Your task to perform on an android device: Do I have any events tomorrow? Image 0: 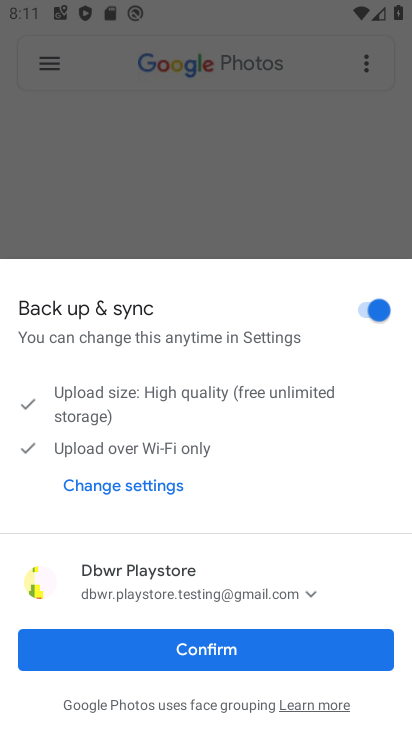
Step 0: press back button
Your task to perform on an android device: Do I have any events tomorrow? Image 1: 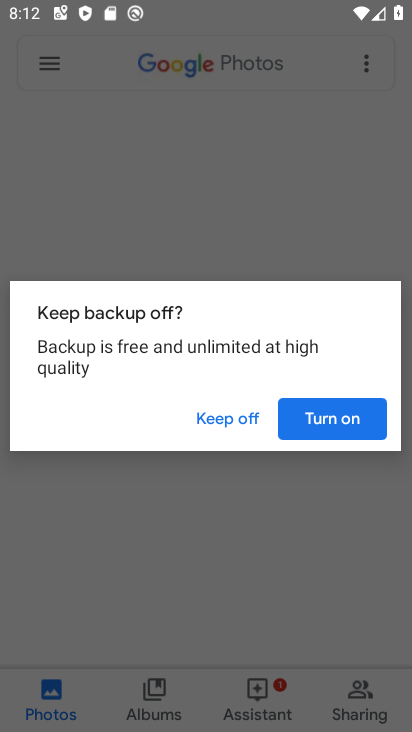
Step 1: click (229, 408)
Your task to perform on an android device: Do I have any events tomorrow? Image 2: 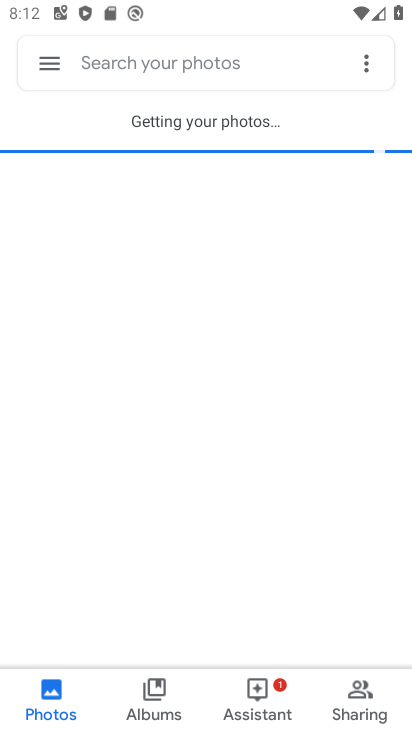
Step 2: press back button
Your task to perform on an android device: Do I have any events tomorrow? Image 3: 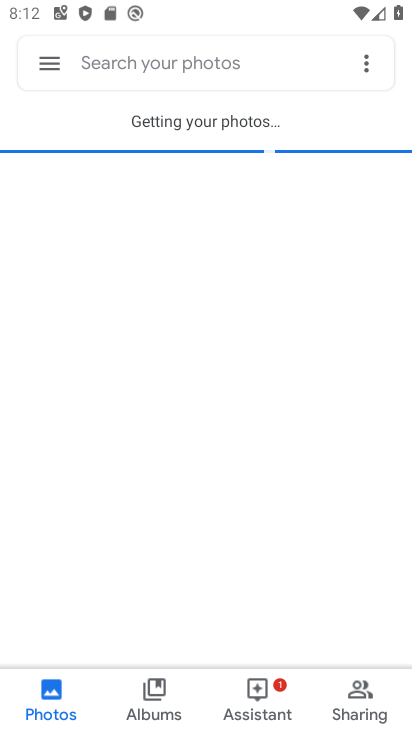
Step 3: press back button
Your task to perform on an android device: Do I have any events tomorrow? Image 4: 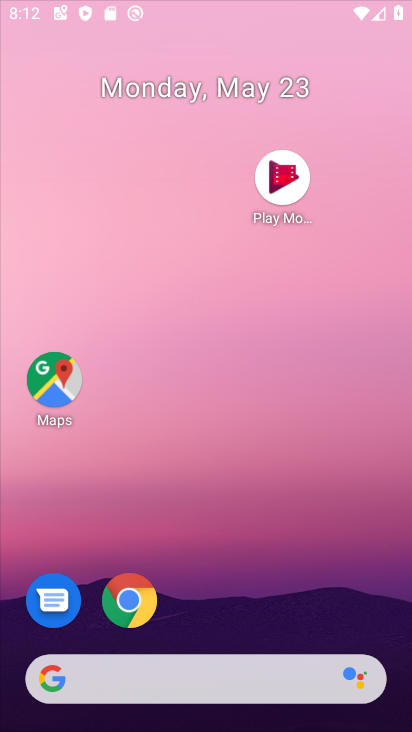
Step 4: press back button
Your task to perform on an android device: Do I have any events tomorrow? Image 5: 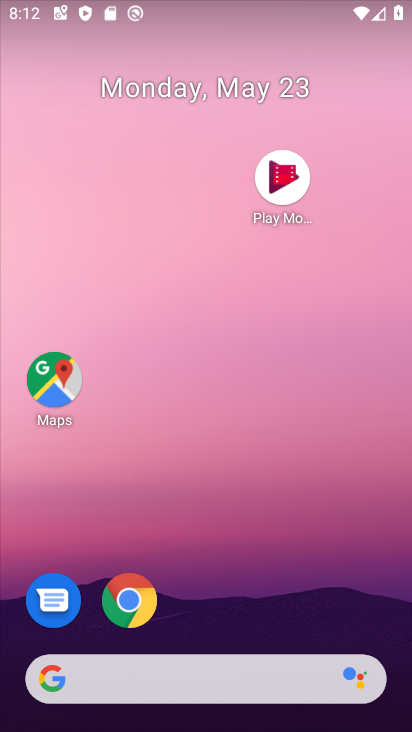
Step 5: drag from (278, 694) to (278, 200)
Your task to perform on an android device: Do I have any events tomorrow? Image 6: 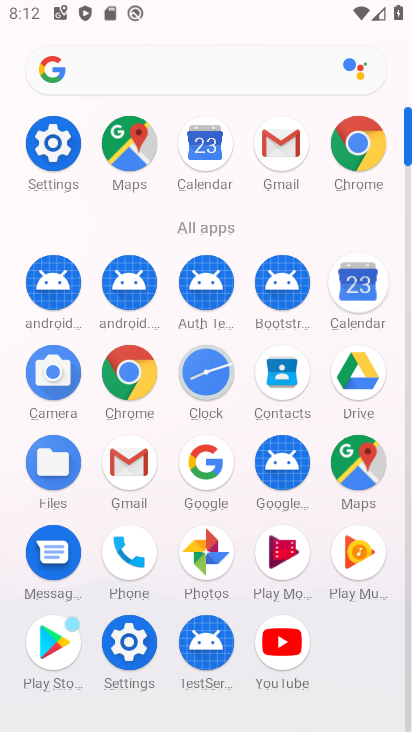
Step 6: click (356, 291)
Your task to perform on an android device: Do I have any events tomorrow? Image 7: 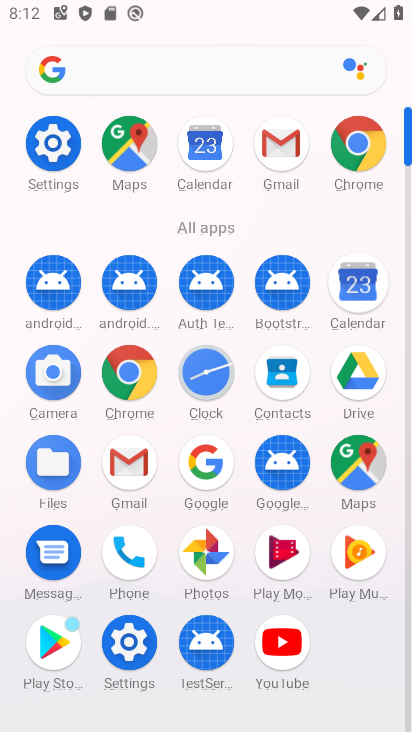
Step 7: click (359, 292)
Your task to perform on an android device: Do I have any events tomorrow? Image 8: 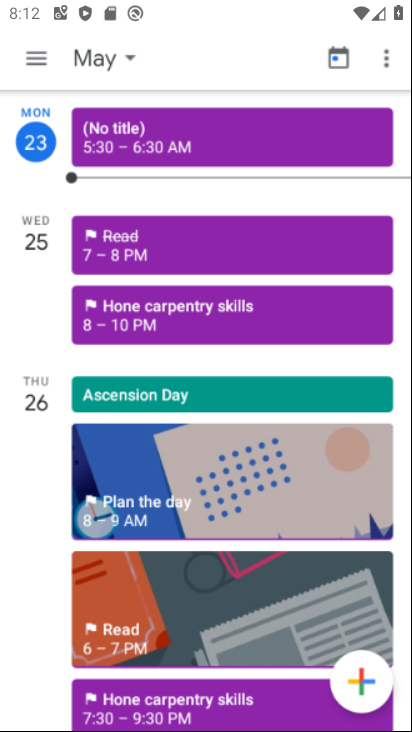
Step 8: click (363, 291)
Your task to perform on an android device: Do I have any events tomorrow? Image 9: 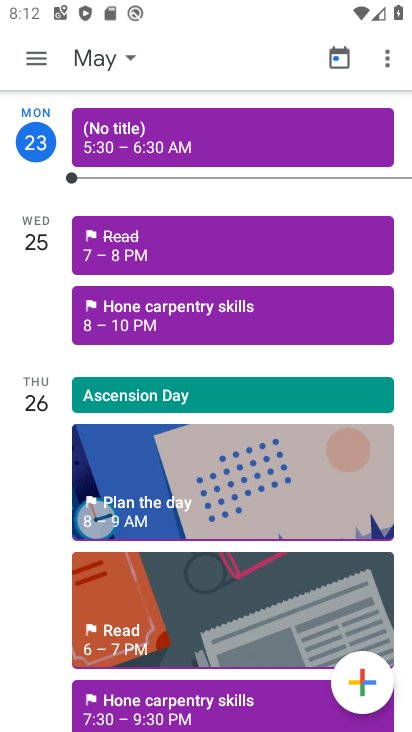
Step 9: click (136, 250)
Your task to perform on an android device: Do I have any events tomorrow? Image 10: 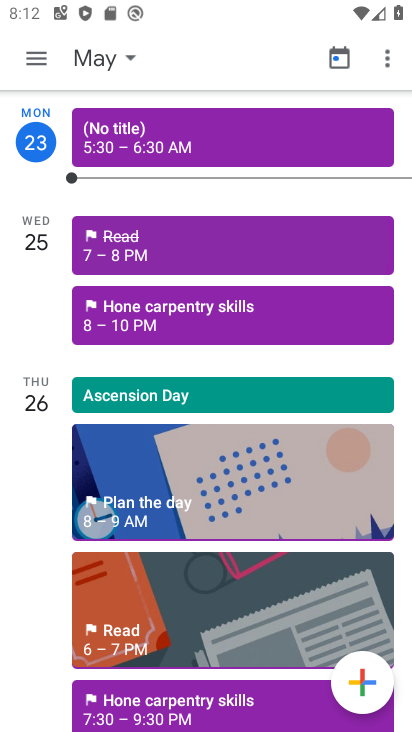
Step 10: click (135, 249)
Your task to perform on an android device: Do I have any events tomorrow? Image 11: 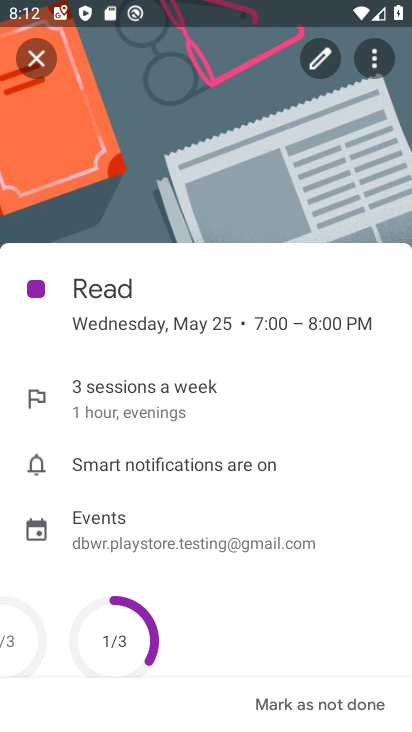
Step 11: task complete